Your task to perform on an android device: toggle notifications settings in the gmail app Image 0: 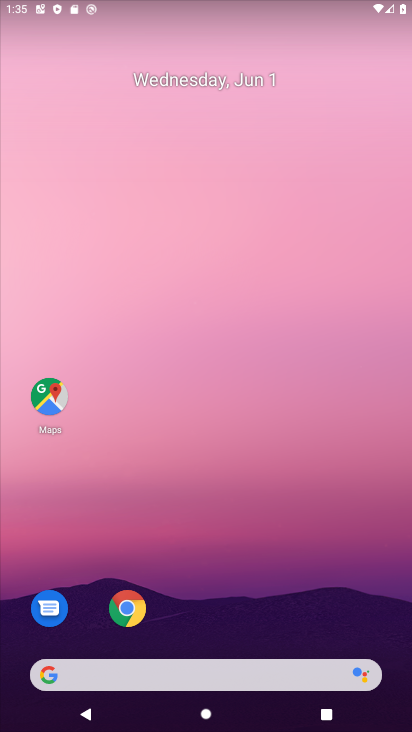
Step 0: drag from (226, 641) to (241, 410)
Your task to perform on an android device: toggle notifications settings in the gmail app Image 1: 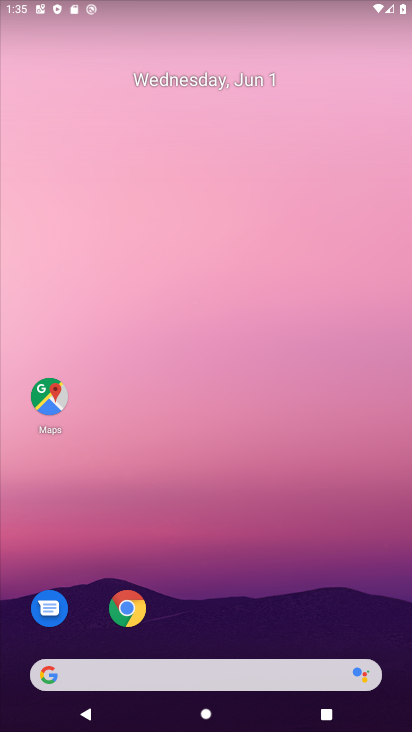
Step 1: drag from (185, 627) to (214, 171)
Your task to perform on an android device: toggle notifications settings in the gmail app Image 2: 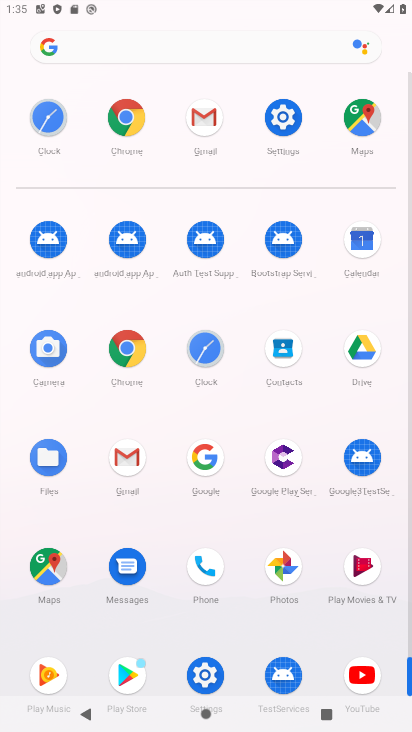
Step 2: click (206, 139)
Your task to perform on an android device: toggle notifications settings in the gmail app Image 3: 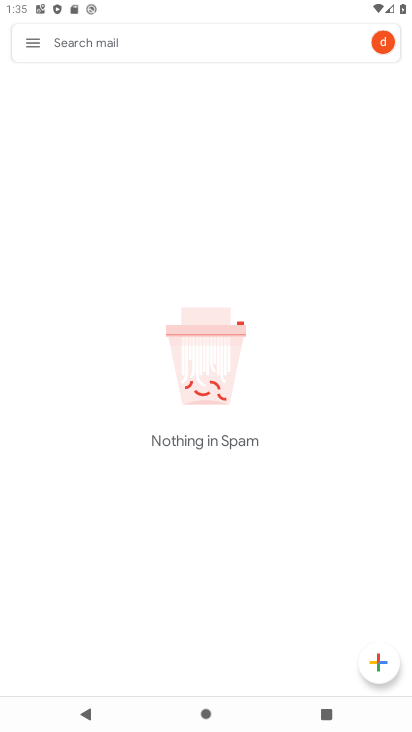
Step 3: click (32, 41)
Your task to perform on an android device: toggle notifications settings in the gmail app Image 4: 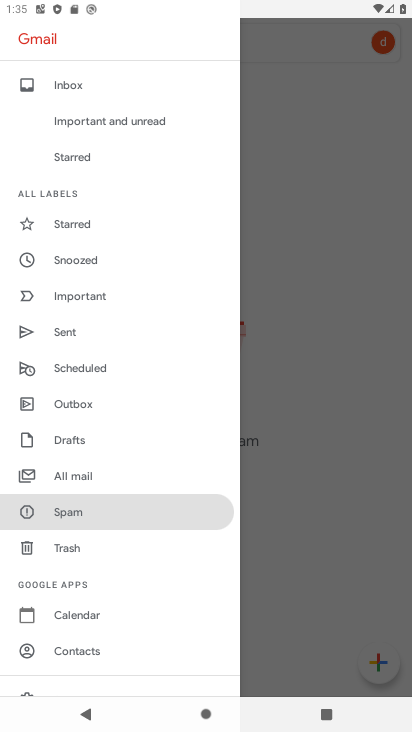
Step 4: drag from (87, 641) to (107, 351)
Your task to perform on an android device: toggle notifications settings in the gmail app Image 5: 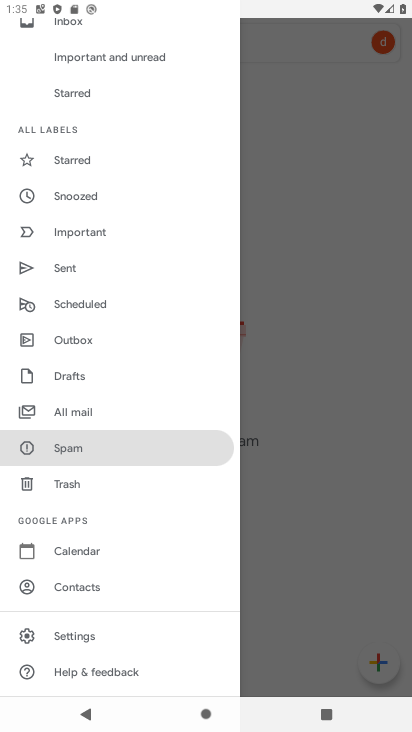
Step 5: click (74, 640)
Your task to perform on an android device: toggle notifications settings in the gmail app Image 6: 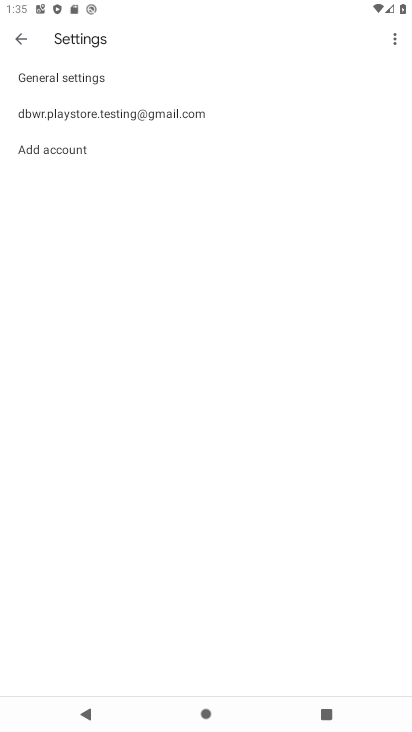
Step 6: click (126, 123)
Your task to perform on an android device: toggle notifications settings in the gmail app Image 7: 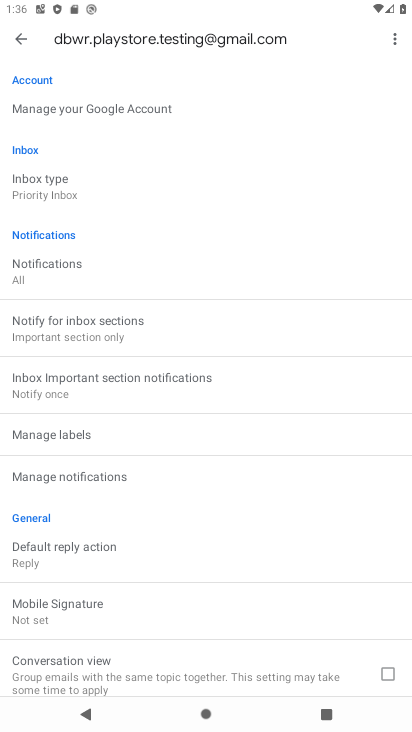
Step 7: click (97, 473)
Your task to perform on an android device: toggle notifications settings in the gmail app Image 8: 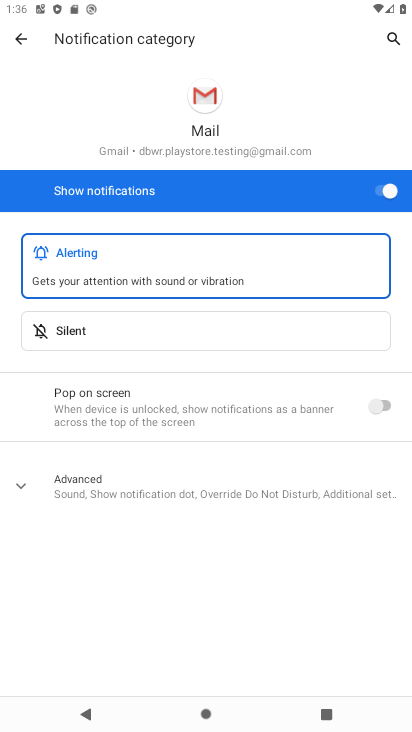
Step 8: click (369, 192)
Your task to perform on an android device: toggle notifications settings in the gmail app Image 9: 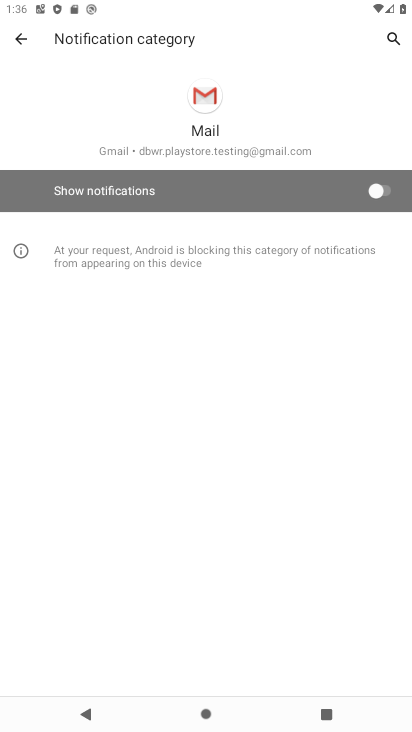
Step 9: task complete